Your task to perform on an android device: turn on location history Image 0: 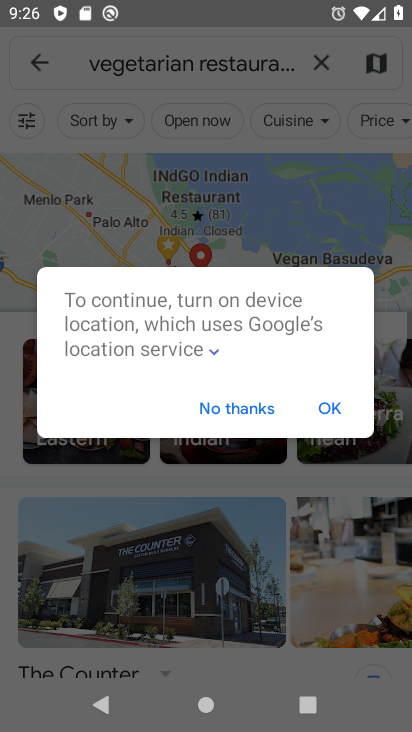
Step 0: click (32, 57)
Your task to perform on an android device: turn on location history Image 1: 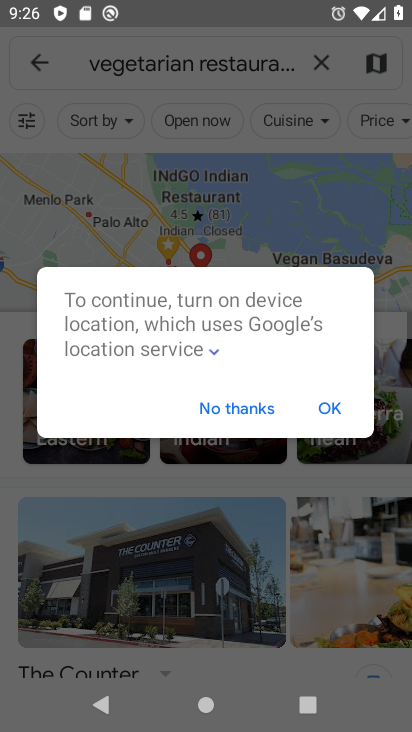
Step 1: click (221, 404)
Your task to perform on an android device: turn on location history Image 2: 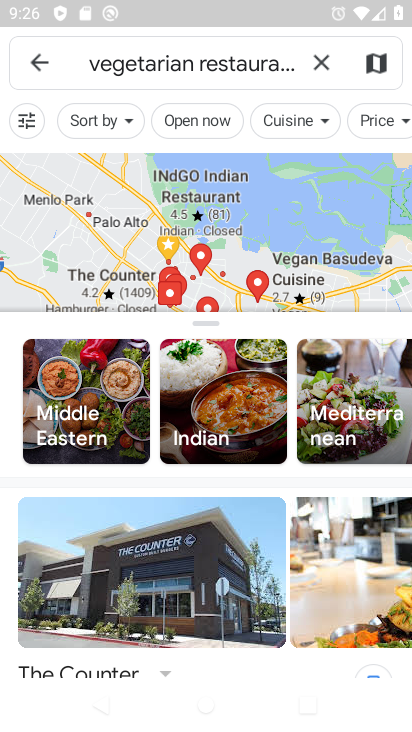
Step 2: click (31, 53)
Your task to perform on an android device: turn on location history Image 3: 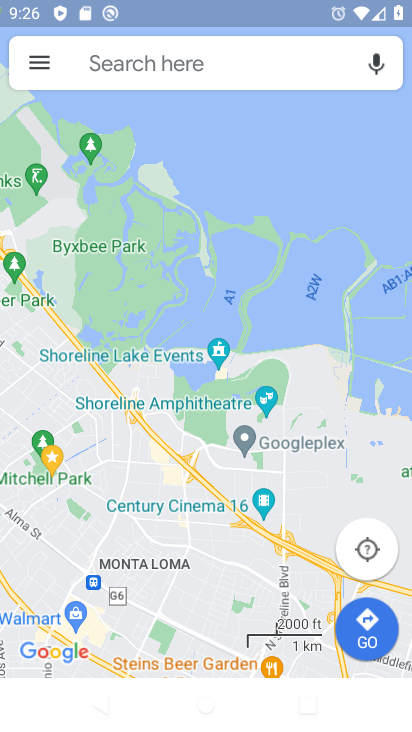
Step 3: press back button
Your task to perform on an android device: turn on location history Image 4: 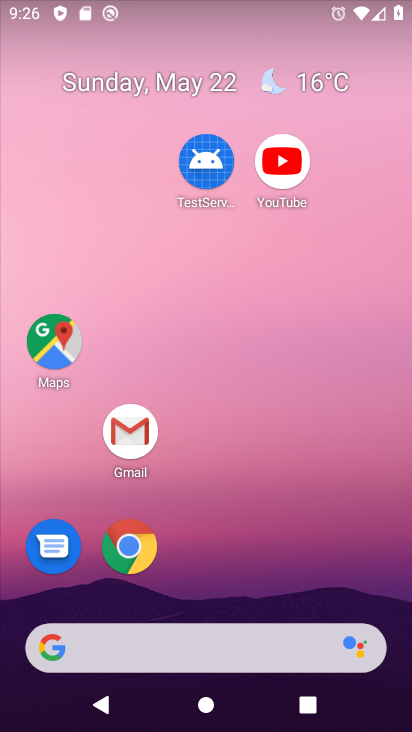
Step 4: drag from (254, 704) to (248, 136)
Your task to perform on an android device: turn on location history Image 5: 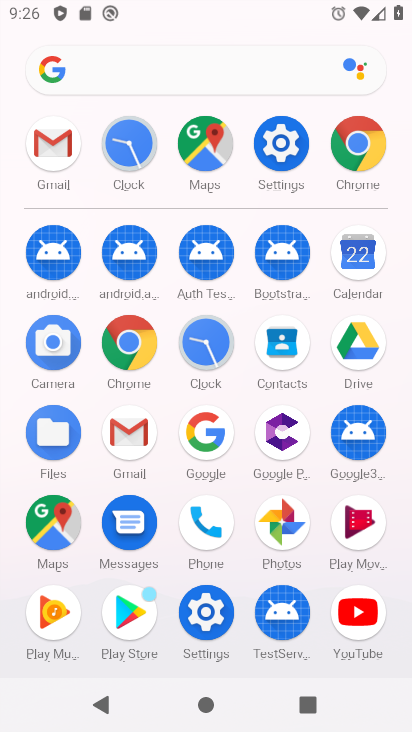
Step 5: click (210, 148)
Your task to perform on an android device: turn on location history Image 6: 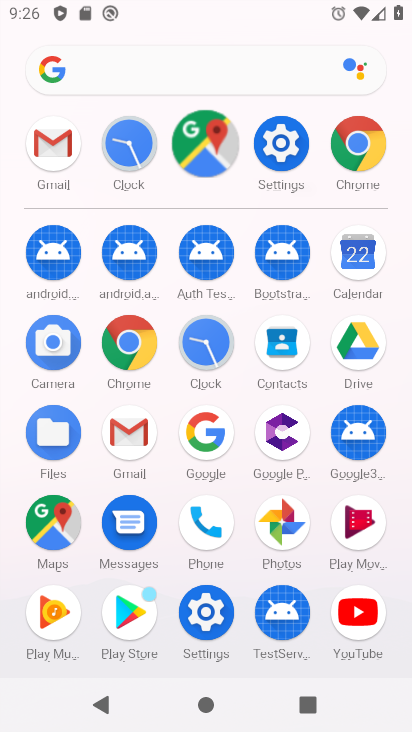
Step 6: click (210, 148)
Your task to perform on an android device: turn on location history Image 7: 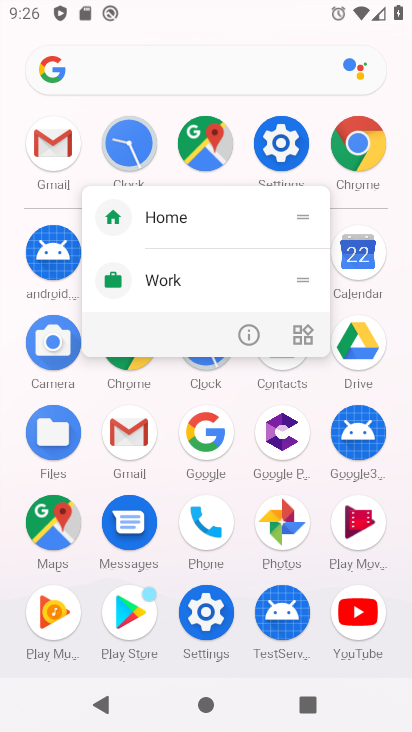
Step 7: click (193, 154)
Your task to perform on an android device: turn on location history Image 8: 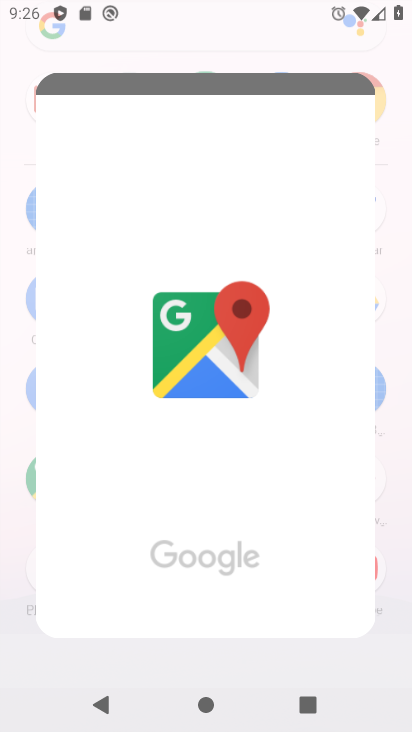
Step 8: click (200, 154)
Your task to perform on an android device: turn on location history Image 9: 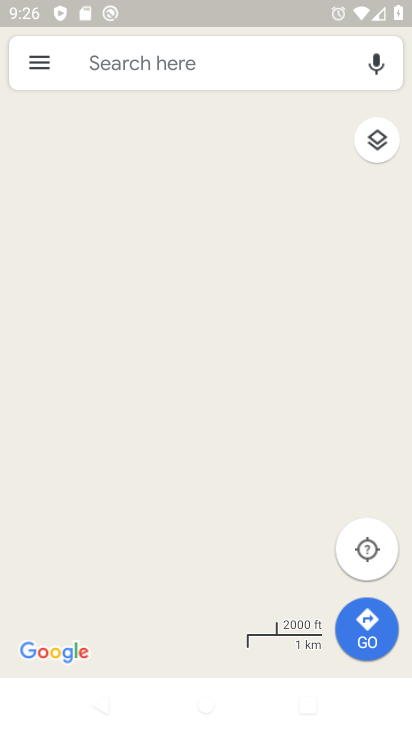
Step 9: click (33, 61)
Your task to perform on an android device: turn on location history Image 10: 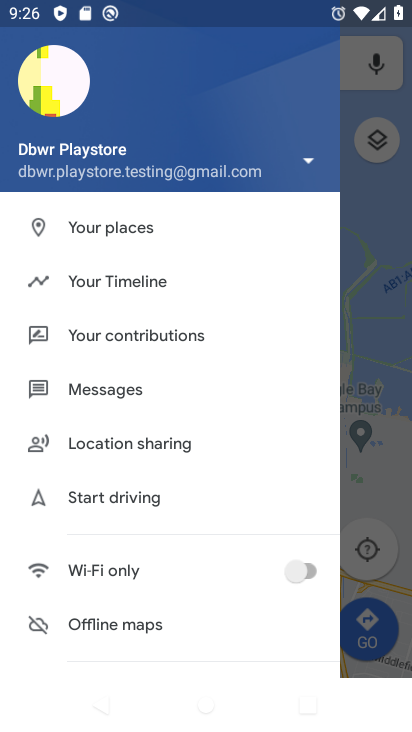
Step 10: click (122, 285)
Your task to perform on an android device: turn on location history Image 11: 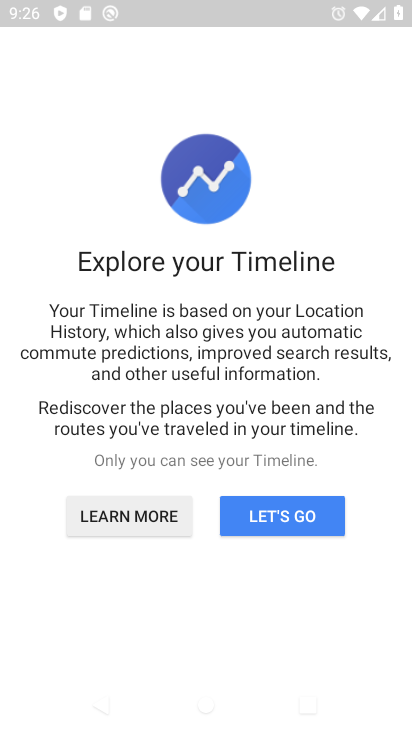
Step 11: click (263, 518)
Your task to perform on an android device: turn on location history Image 12: 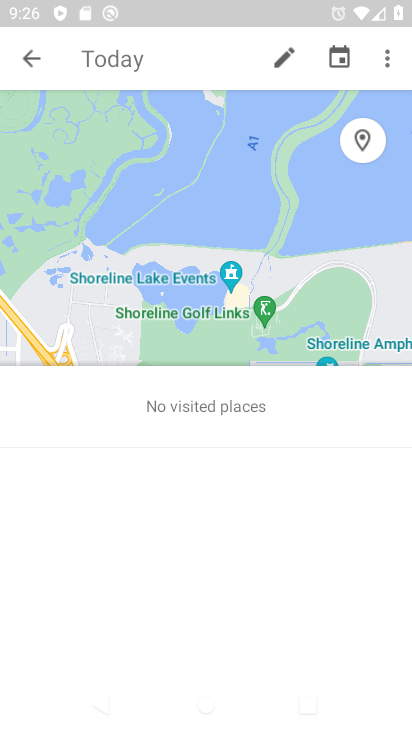
Step 12: click (385, 59)
Your task to perform on an android device: turn on location history Image 13: 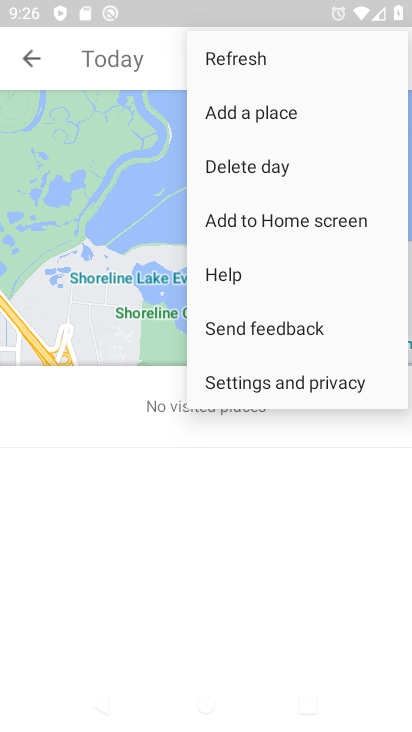
Step 13: click (255, 377)
Your task to perform on an android device: turn on location history Image 14: 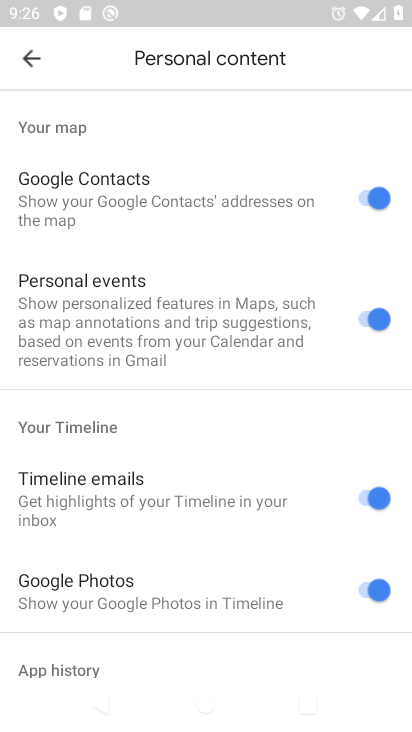
Step 14: drag from (208, 546) to (208, 167)
Your task to perform on an android device: turn on location history Image 15: 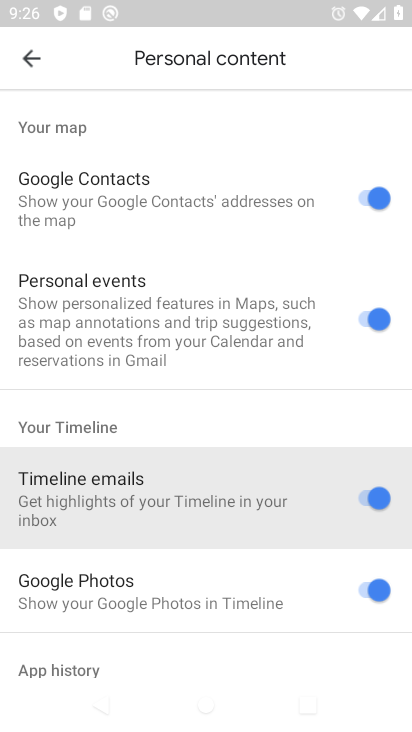
Step 15: drag from (205, 545) to (214, 98)
Your task to perform on an android device: turn on location history Image 16: 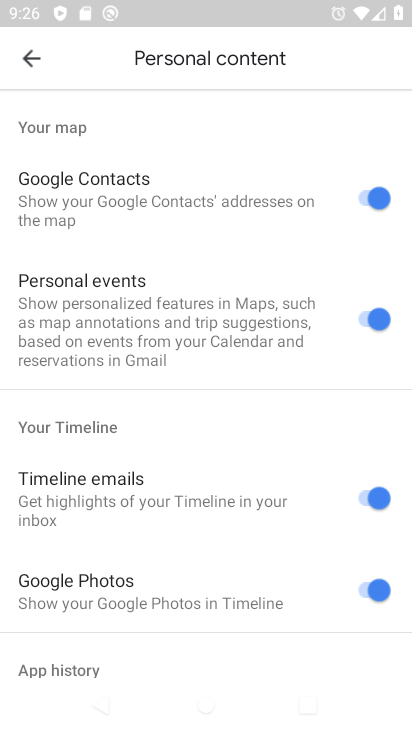
Step 16: drag from (164, 549) to (123, 264)
Your task to perform on an android device: turn on location history Image 17: 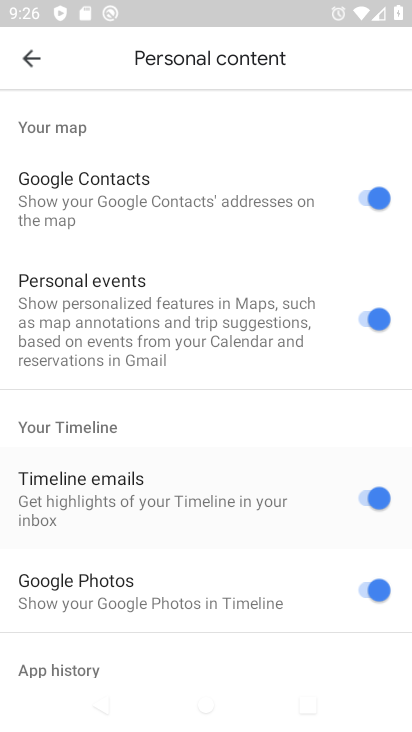
Step 17: drag from (179, 450) to (179, 59)
Your task to perform on an android device: turn on location history Image 18: 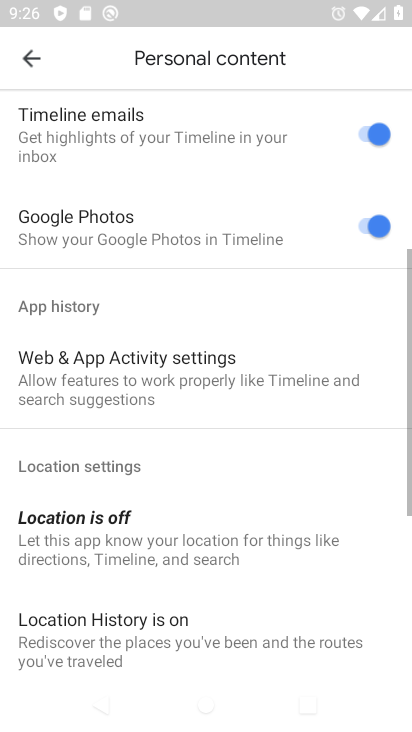
Step 18: drag from (177, 407) to (221, 104)
Your task to perform on an android device: turn on location history Image 19: 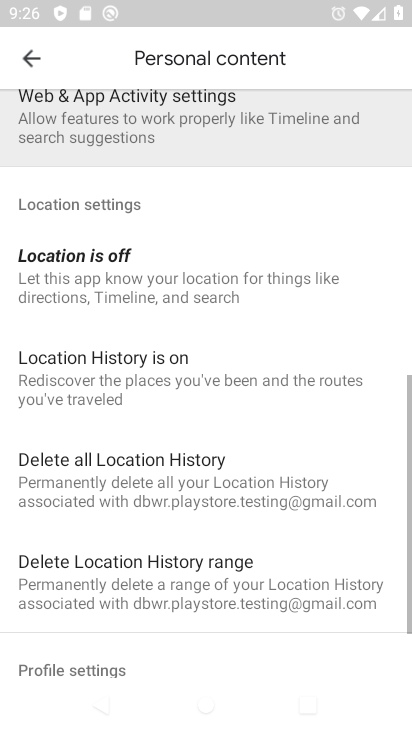
Step 19: drag from (240, 437) to (235, 150)
Your task to perform on an android device: turn on location history Image 20: 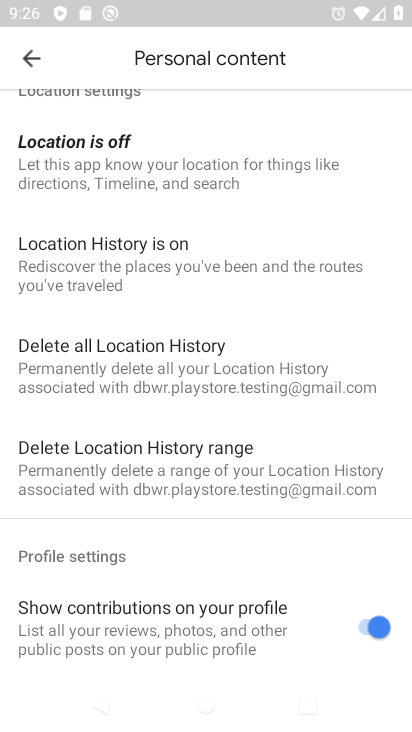
Step 20: click (67, 174)
Your task to perform on an android device: turn on location history Image 21: 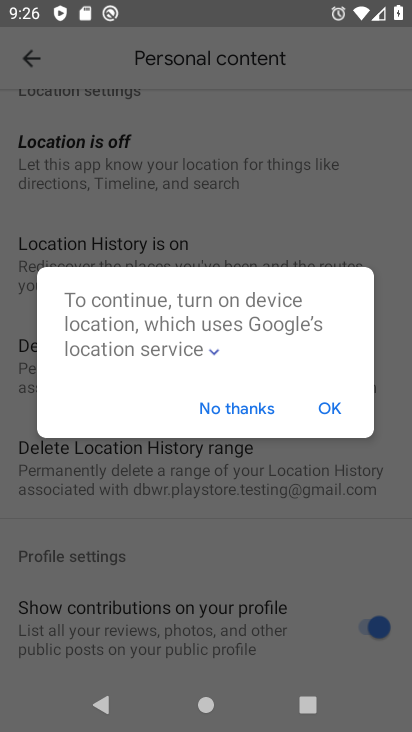
Step 21: click (236, 415)
Your task to perform on an android device: turn on location history Image 22: 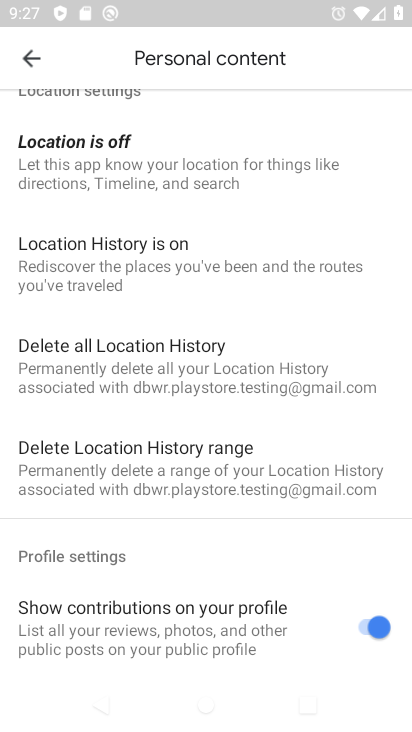
Step 22: click (87, 270)
Your task to perform on an android device: turn on location history Image 23: 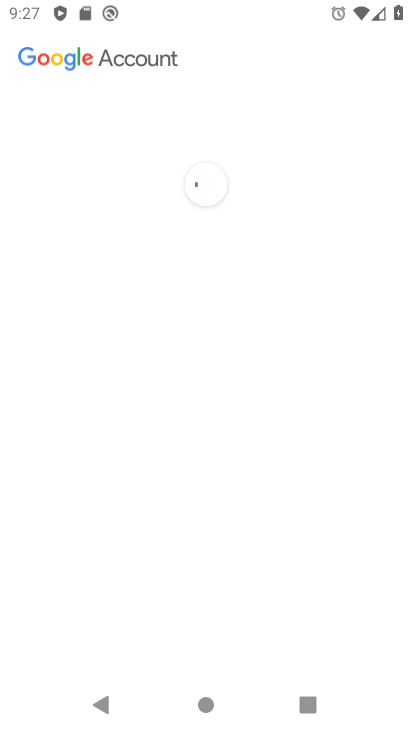
Step 23: task complete